Your task to perform on an android device: When is my next meeting? Image 0: 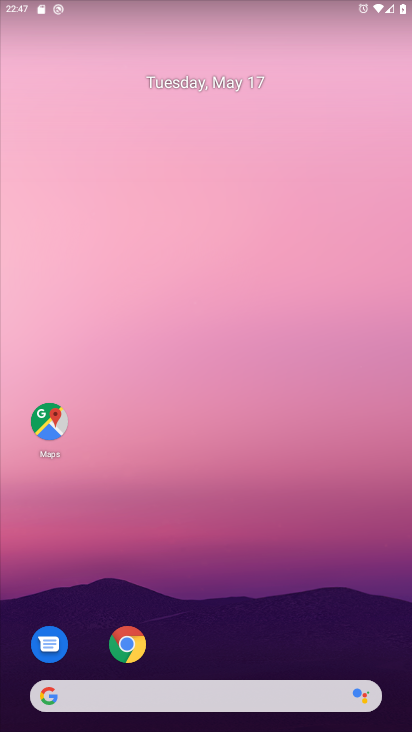
Step 0: drag from (203, 655) to (252, 31)
Your task to perform on an android device: When is my next meeting? Image 1: 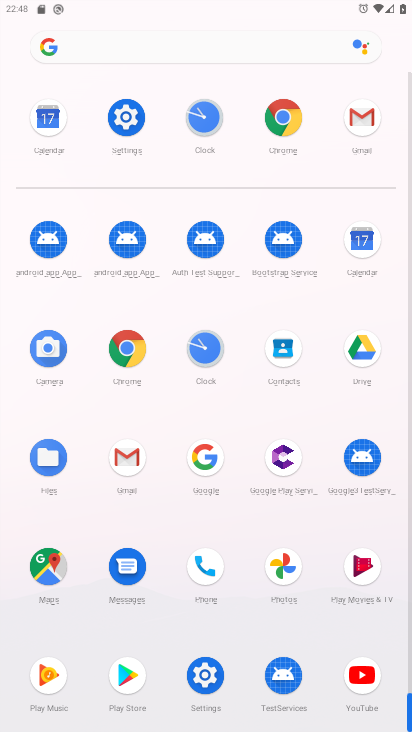
Step 1: click (361, 243)
Your task to perform on an android device: When is my next meeting? Image 2: 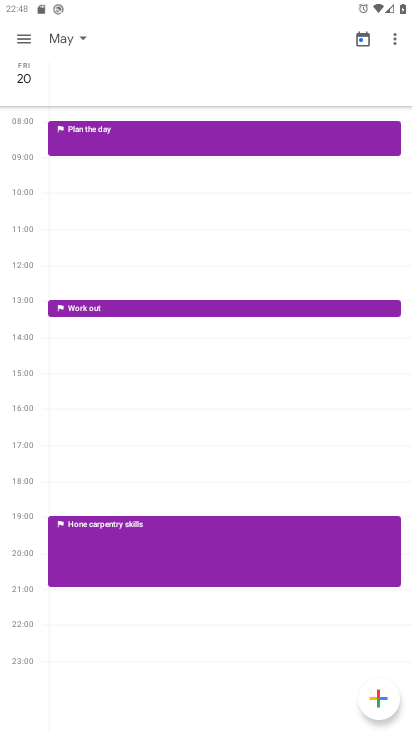
Step 2: click (25, 73)
Your task to perform on an android device: When is my next meeting? Image 3: 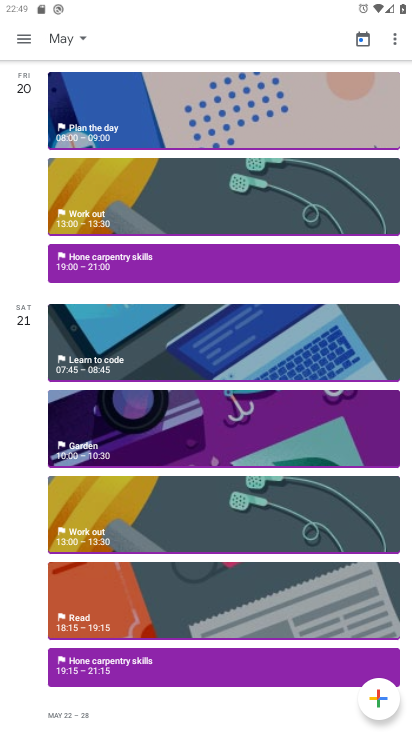
Step 3: task complete